Your task to perform on an android device: check storage Image 0: 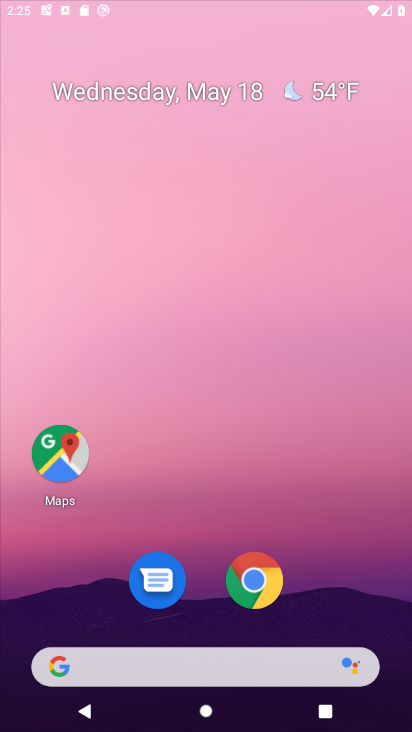
Step 0: click (248, 121)
Your task to perform on an android device: check storage Image 1: 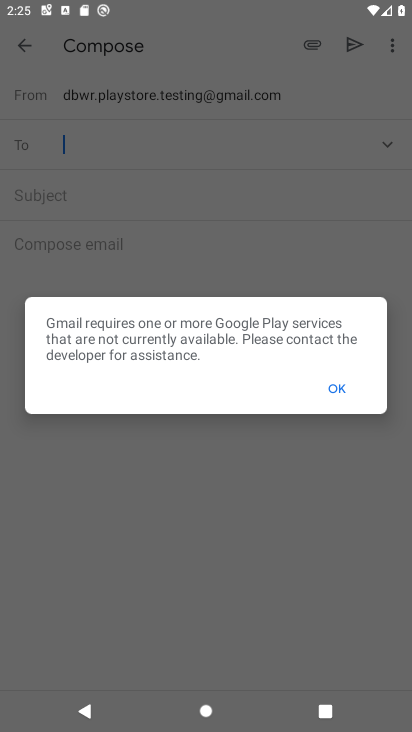
Step 1: press home button
Your task to perform on an android device: check storage Image 2: 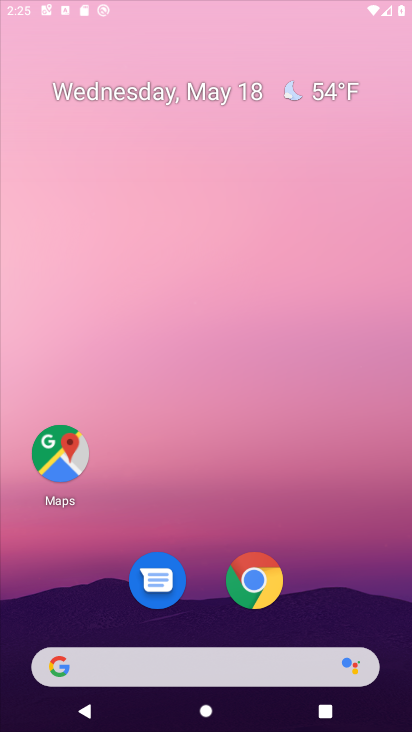
Step 2: drag from (213, 615) to (222, 92)
Your task to perform on an android device: check storage Image 3: 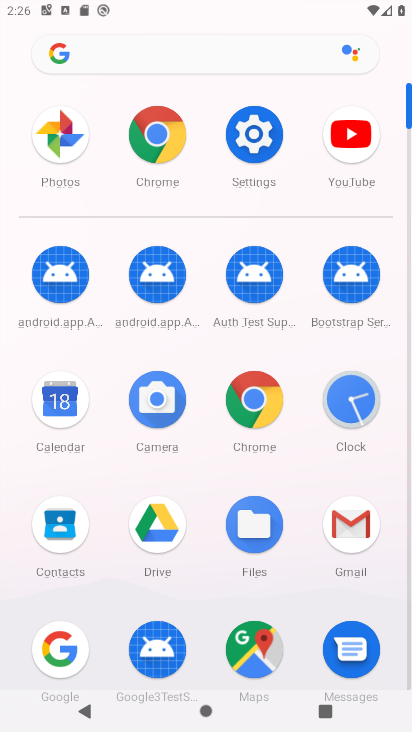
Step 3: click (249, 131)
Your task to perform on an android device: check storage Image 4: 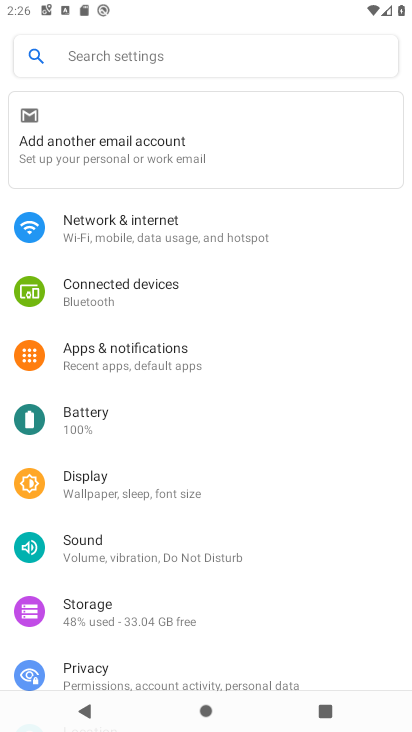
Step 4: drag from (176, 614) to (207, 232)
Your task to perform on an android device: check storage Image 5: 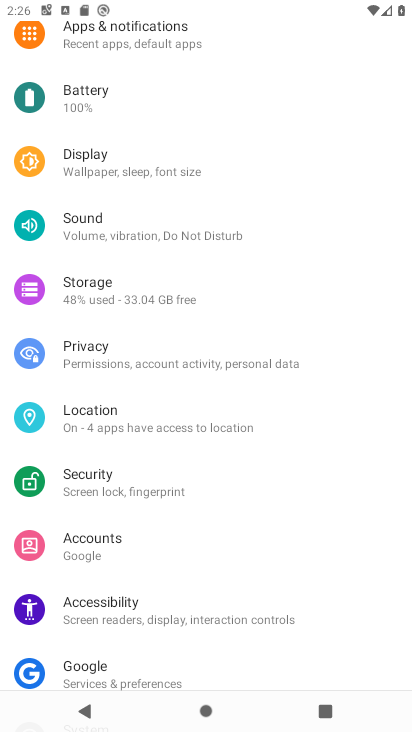
Step 5: click (104, 290)
Your task to perform on an android device: check storage Image 6: 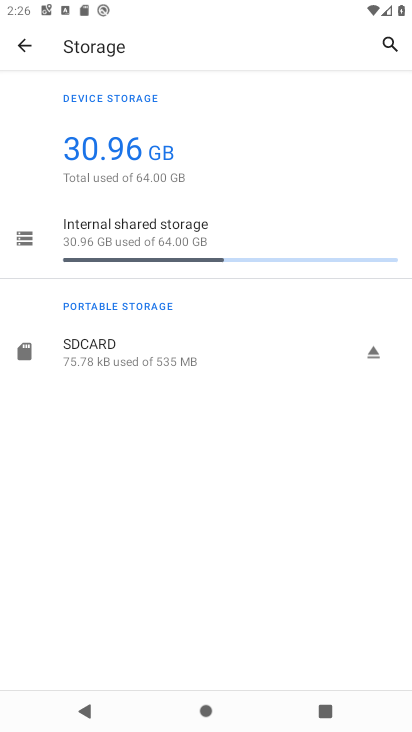
Step 6: task complete